Your task to perform on an android device: install app "Spotify: Music and Podcasts" Image 0: 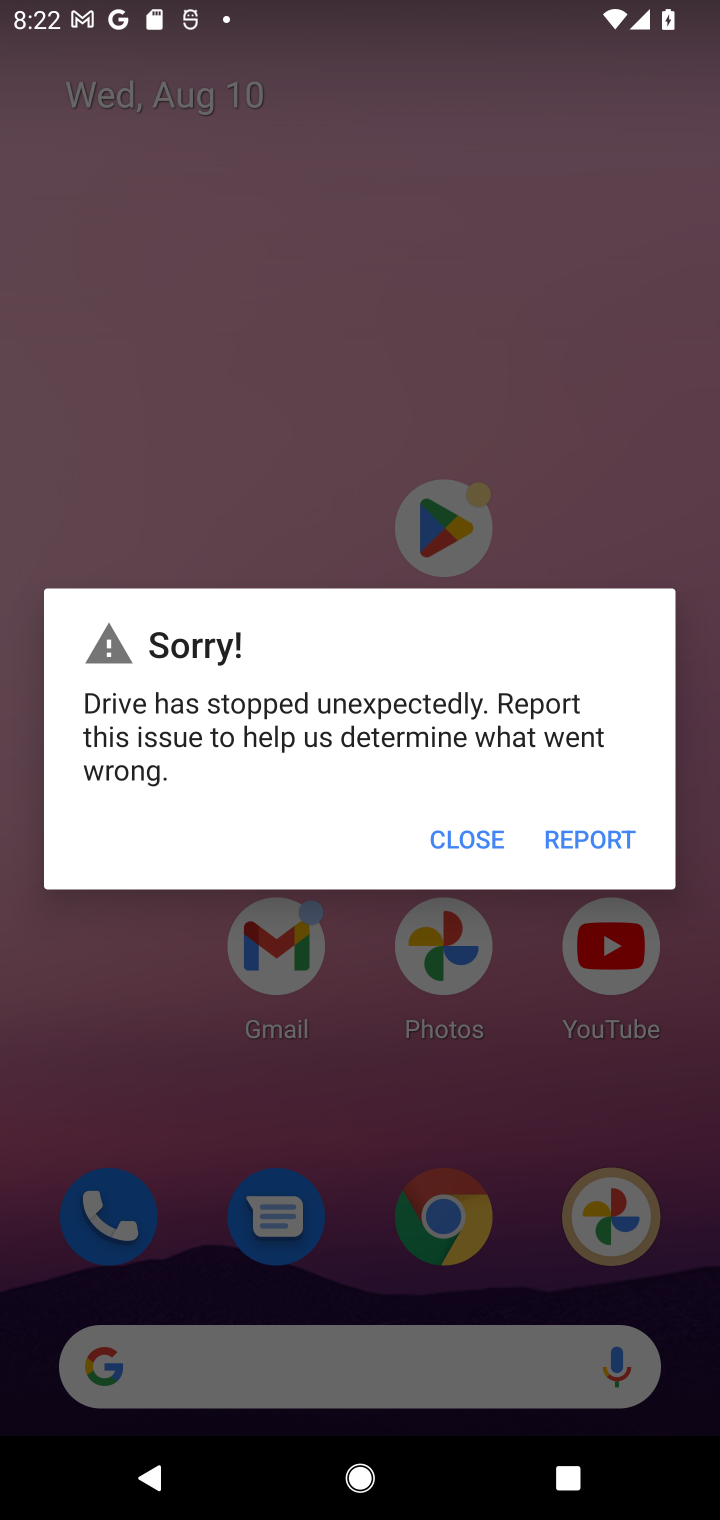
Step 0: press home button
Your task to perform on an android device: install app "Spotify: Music and Podcasts" Image 1: 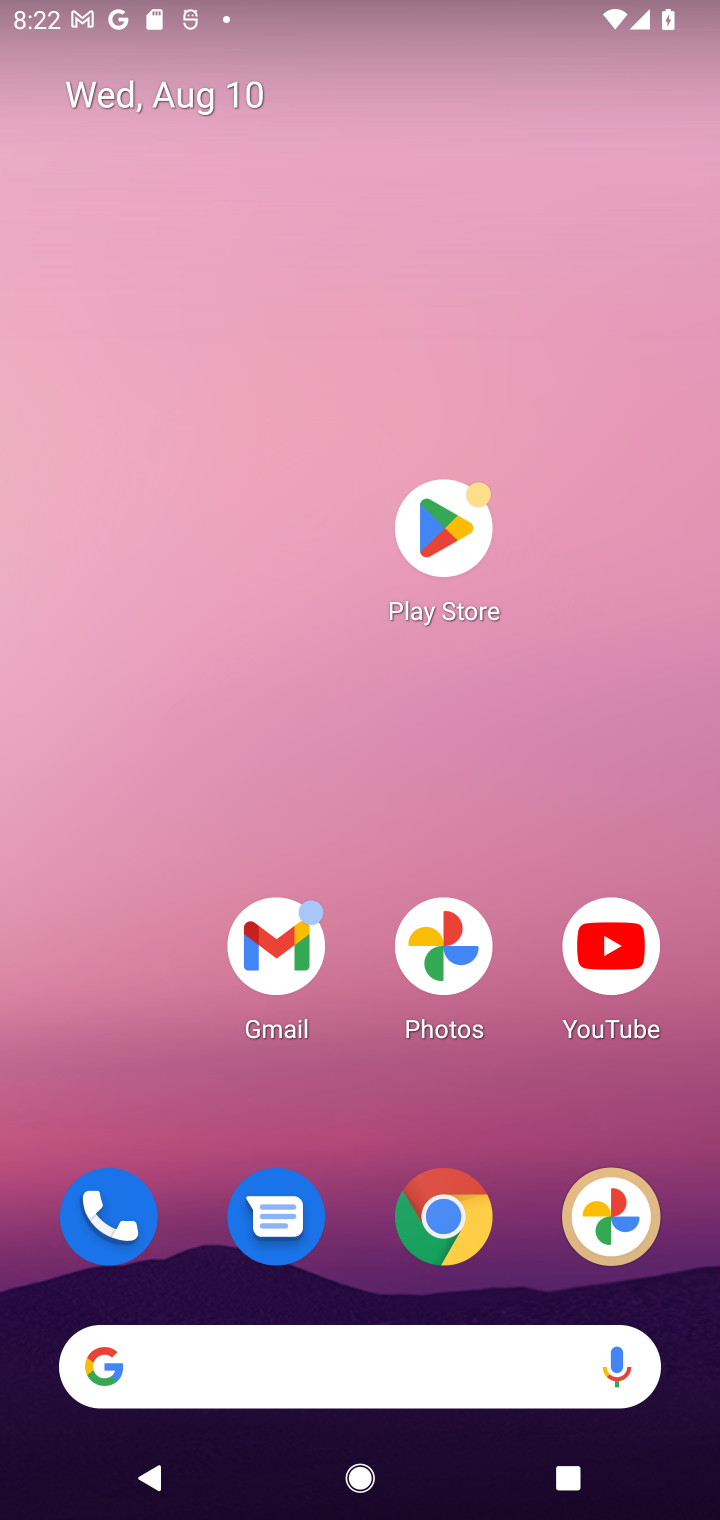
Step 1: click (444, 537)
Your task to perform on an android device: install app "Spotify: Music and Podcasts" Image 2: 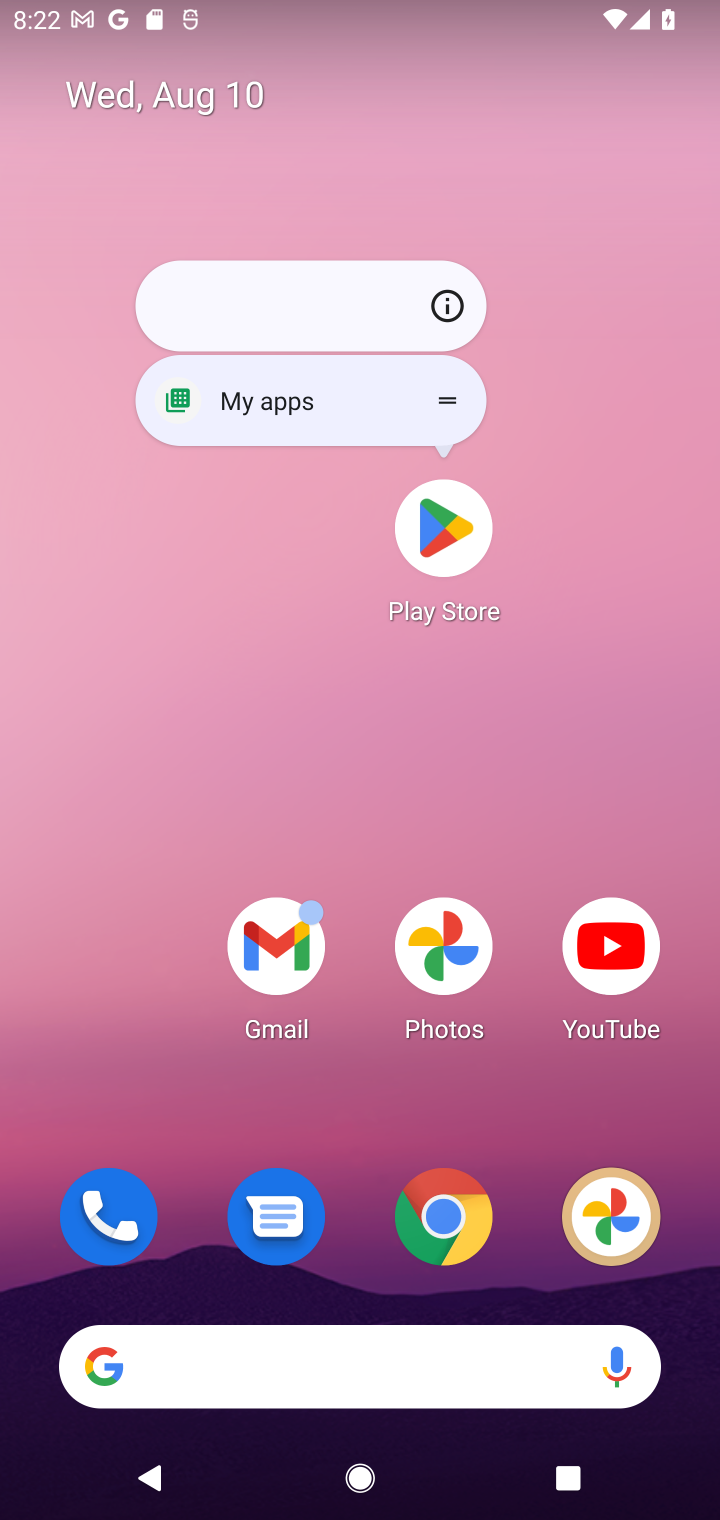
Step 2: click (444, 537)
Your task to perform on an android device: install app "Spotify: Music and Podcasts" Image 3: 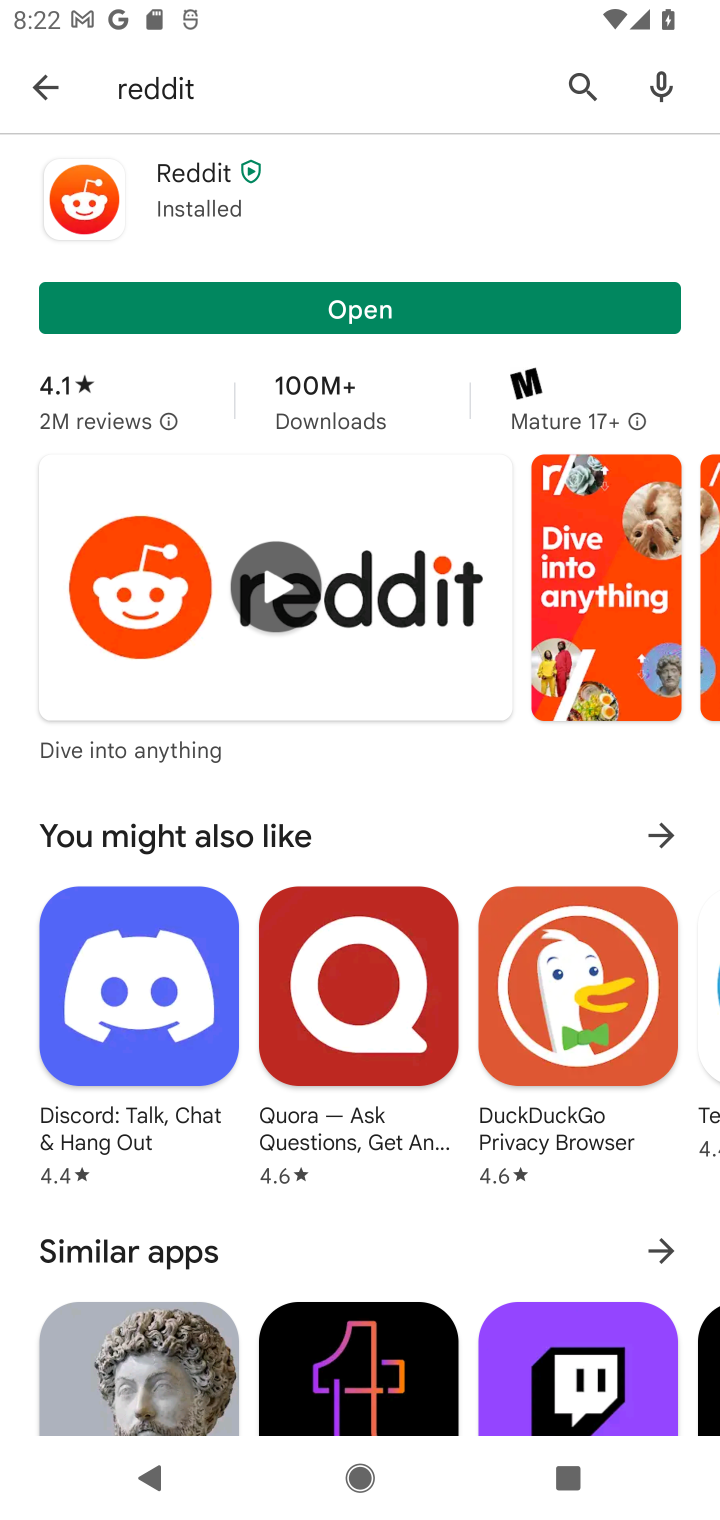
Step 3: click (578, 60)
Your task to perform on an android device: install app "Spotify: Music and Podcasts" Image 4: 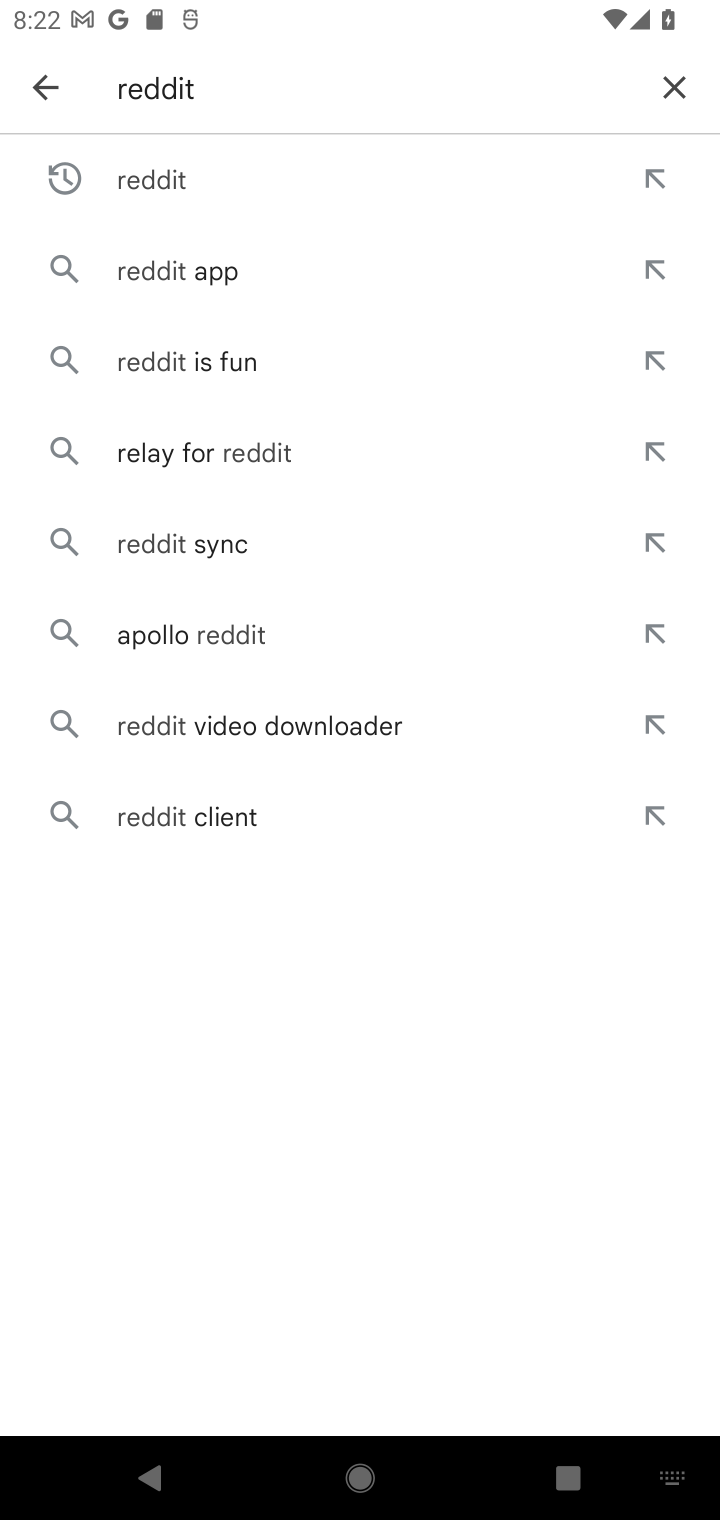
Step 4: click (658, 91)
Your task to perform on an android device: install app "Spotify: Music and Podcasts" Image 5: 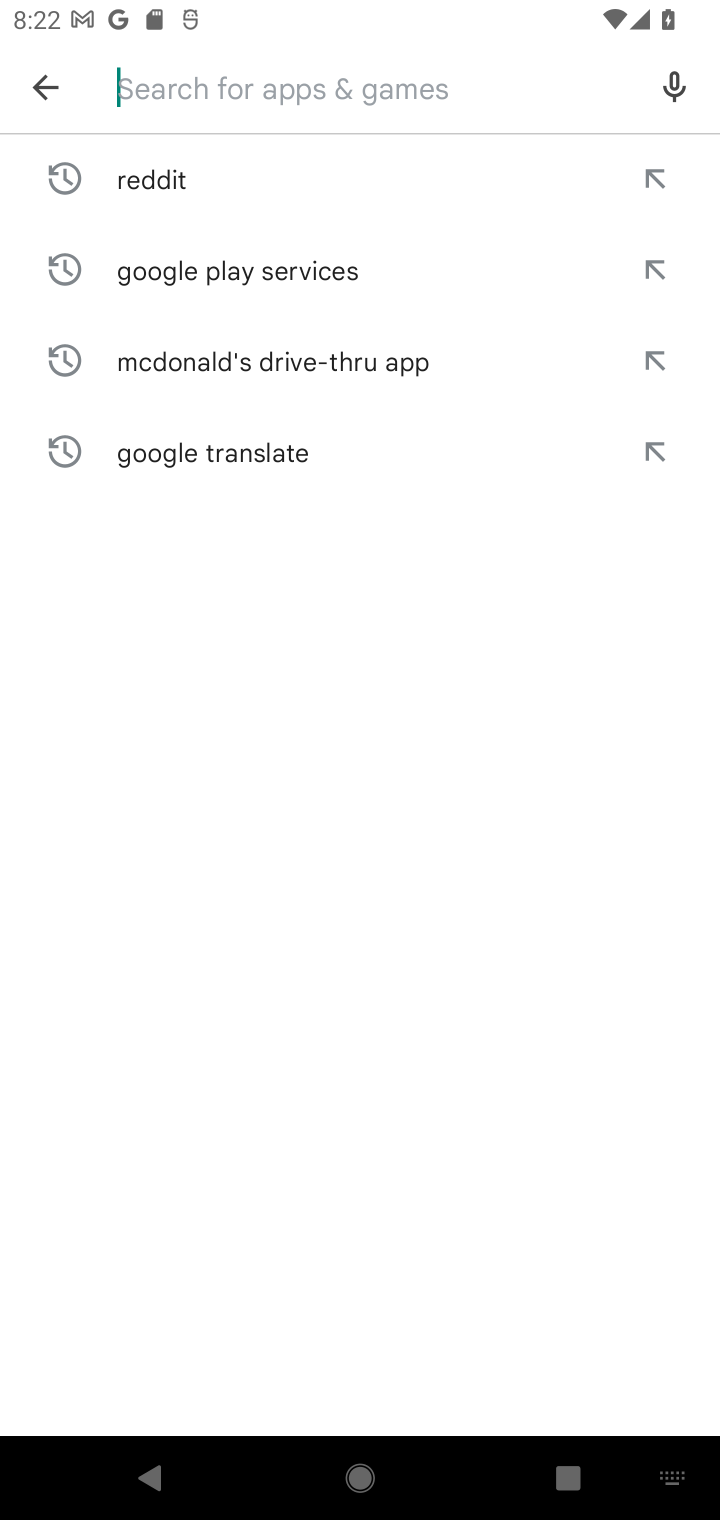
Step 5: type "Spotify: Music and Podcasts"
Your task to perform on an android device: install app "Spotify: Music and Podcasts" Image 6: 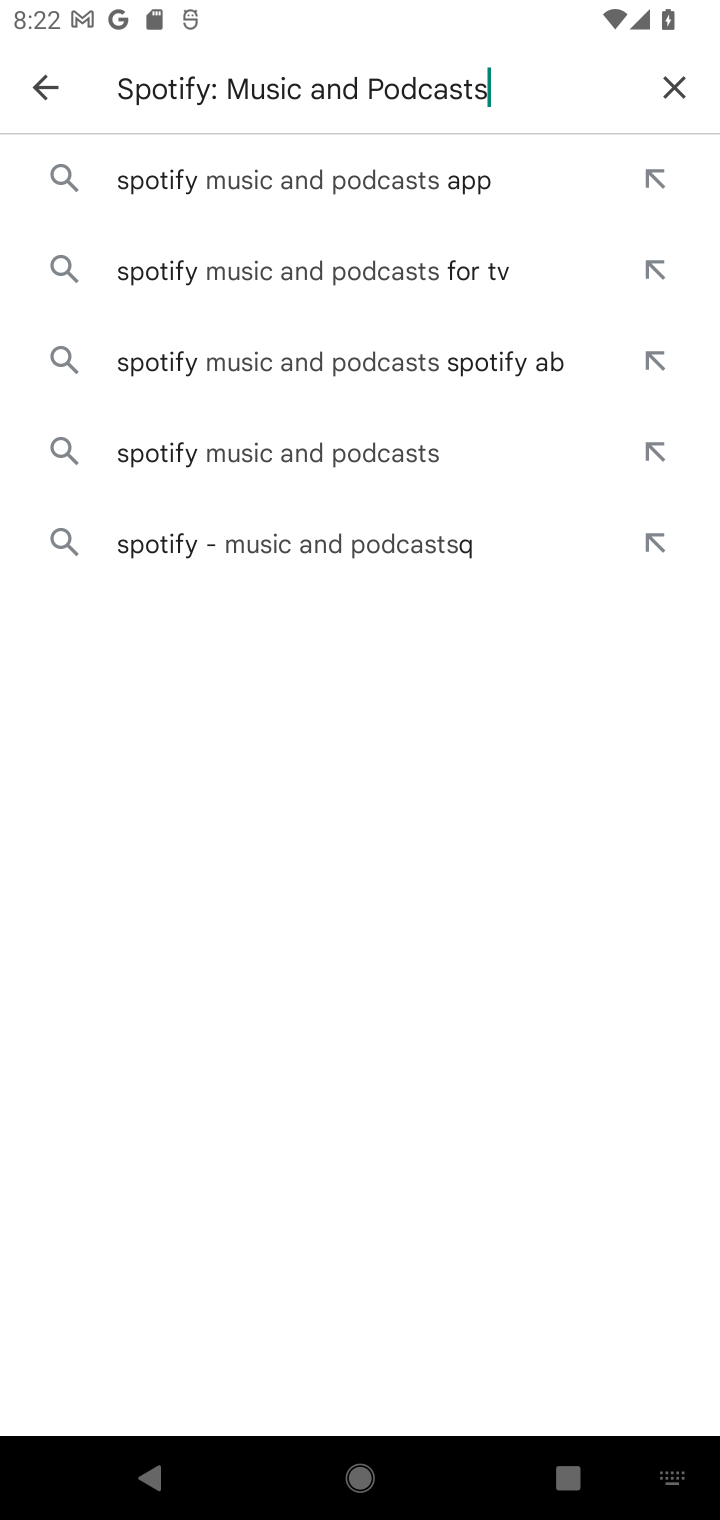
Step 6: click (434, 173)
Your task to perform on an android device: install app "Spotify: Music and Podcasts" Image 7: 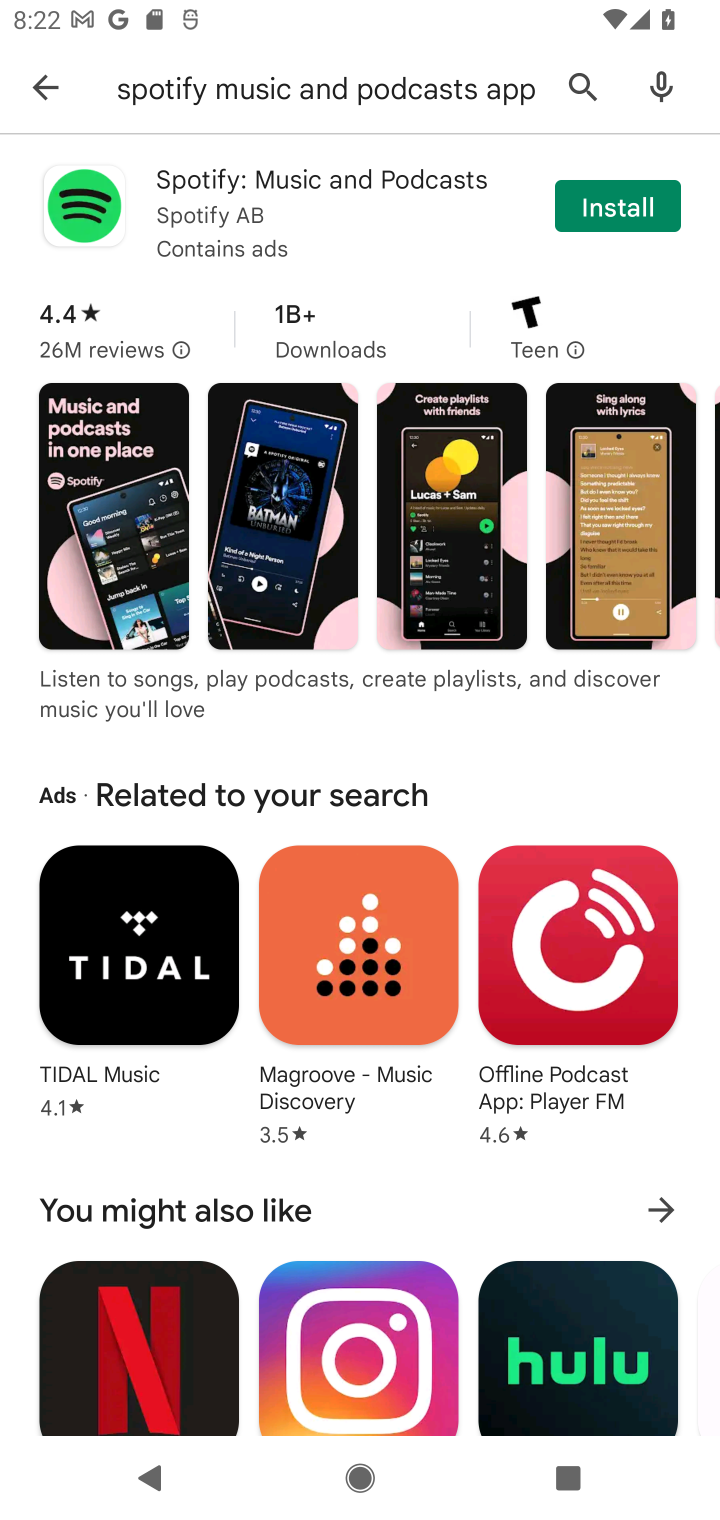
Step 7: click (598, 206)
Your task to perform on an android device: install app "Spotify: Music and Podcasts" Image 8: 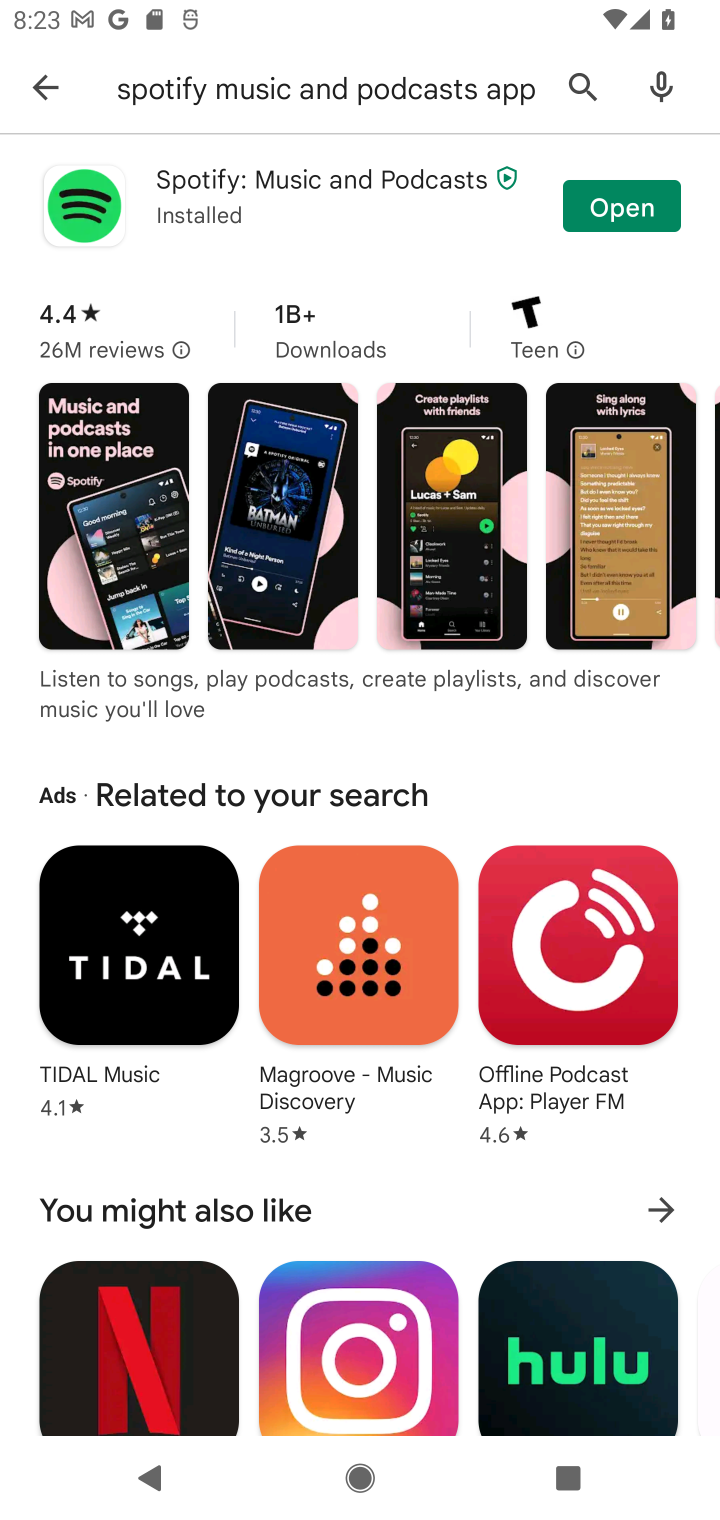
Step 8: task complete